Your task to perform on an android device: Open Google Chrome and click the shortcut for Amazon.com Image 0: 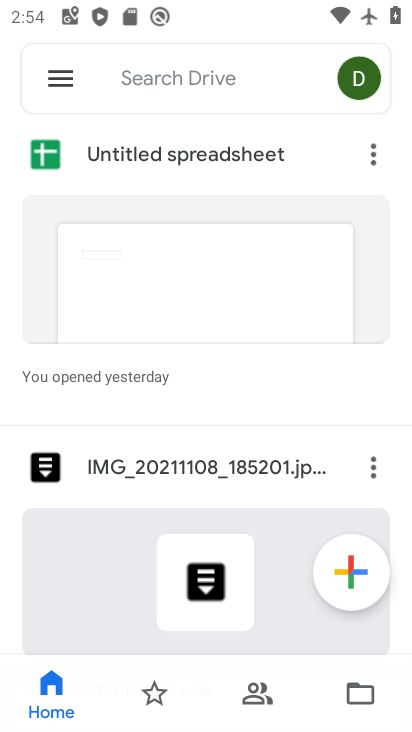
Step 0: press home button
Your task to perform on an android device: Open Google Chrome and click the shortcut for Amazon.com Image 1: 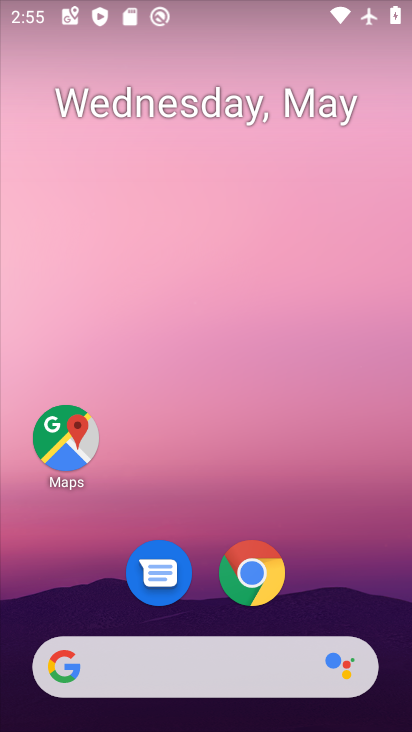
Step 1: click (256, 573)
Your task to perform on an android device: Open Google Chrome and click the shortcut for Amazon.com Image 2: 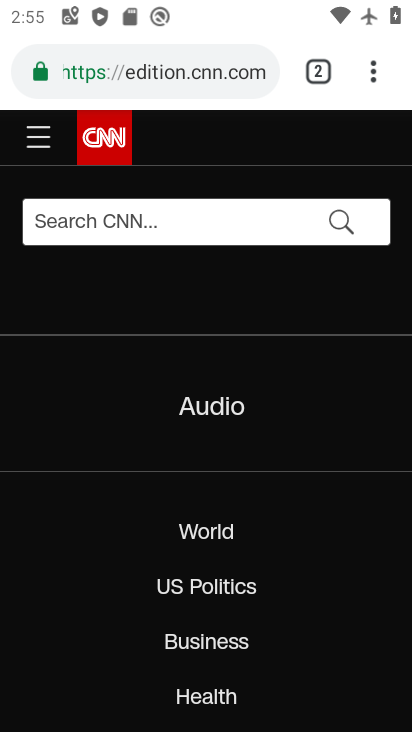
Step 2: click (368, 80)
Your task to perform on an android device: Open Google Chrome and click the shortcut for Amazon.com Image 3: 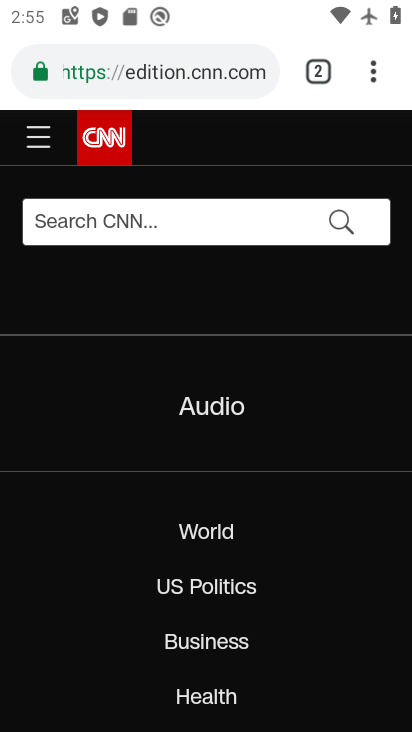
Step 3: click (368, 80)
Your task to perform on an android device: Open Google Chrome and click the shortcut for Amazon.com Image 4: 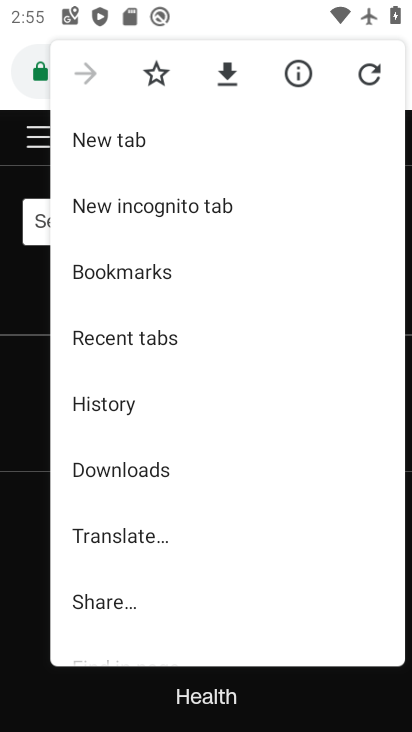
Step 4: click (130, 147)
Your task to perform on an android device: Open Google Chrome and click the shortcut for Amazon.com Image 5: 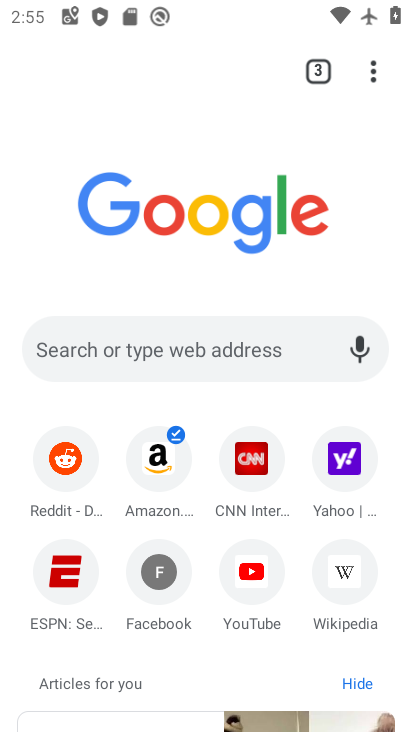
Step 5: click (154, 464)
Your task to perform on an android device: Open Google Chrome and click the shortcut for Amazon.com Image 6: 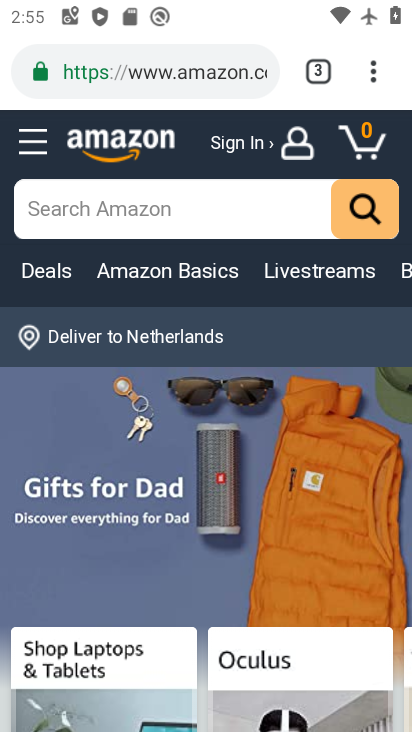
Step 6: task complete